Your task to perform on an android device: Go to privacy settings Image 0: 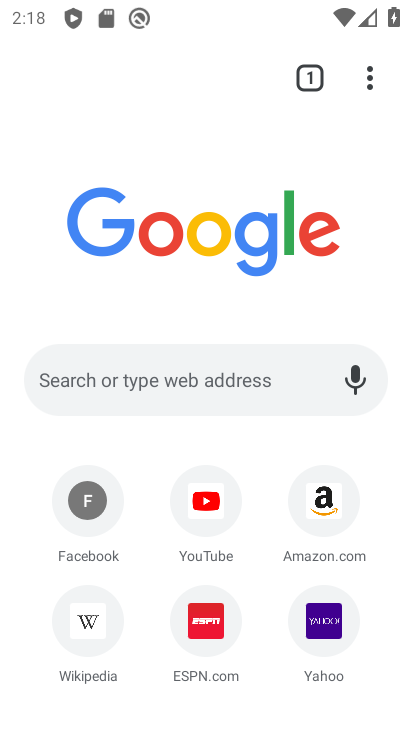
Step 0: press home button
Your task to perform on an android device: Go to privacy settings Image 1: 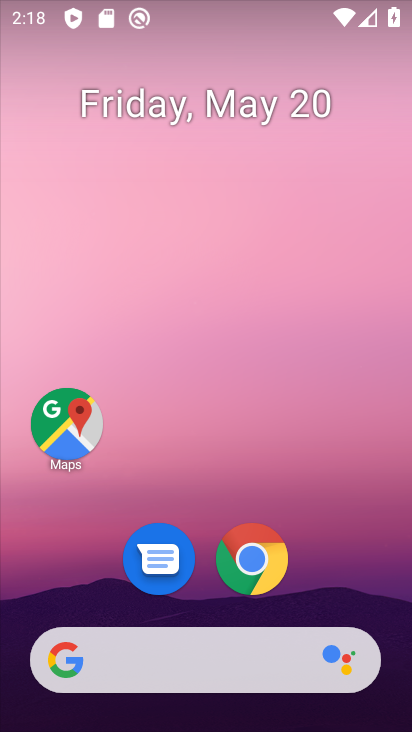
Step 1: drag from (216, 457) to (230, 42)
Your task to perform on an android device: Go to privacy settings Image 2: 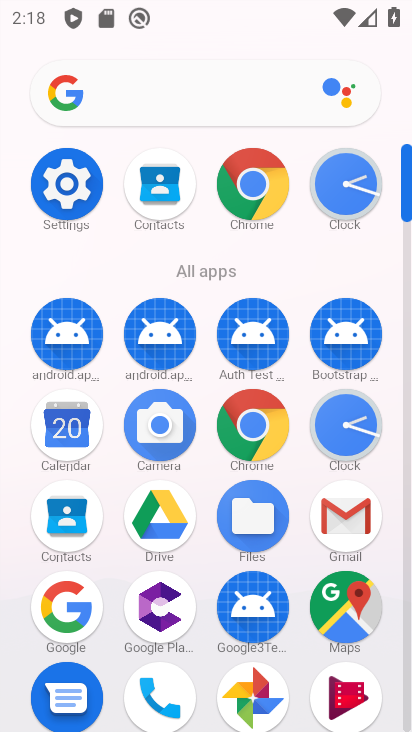
Step 2: click (76, 190)
Your task to perform on an android device: Go to privacy settings Image 3: 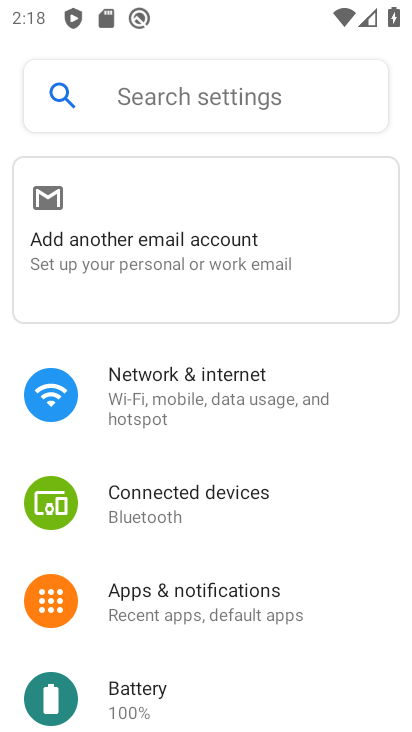
Step 3: drag from (198, 640) to (235, 110)
Your task to perform on an android device: Go to privacy settings Image 4: 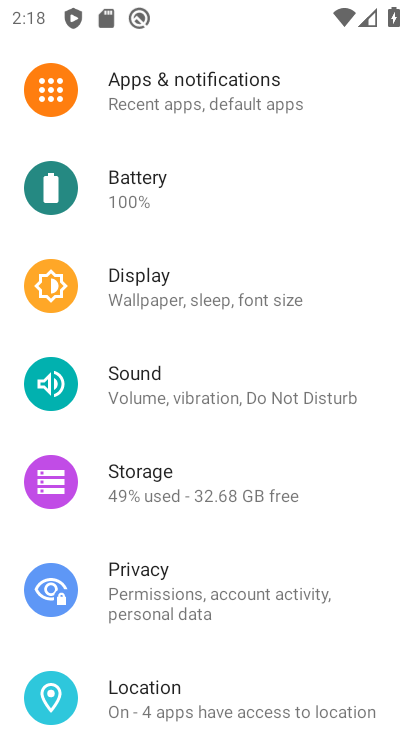
Step 4: click (168, 589)
Your task to perform on an android device: Go to privacy settings Image 5: 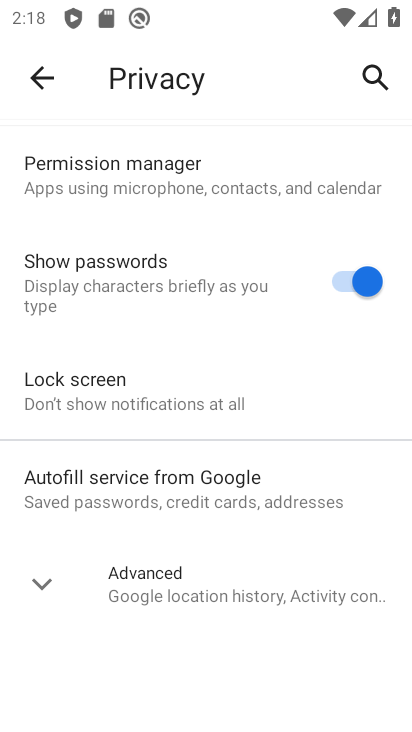
Step 5: task complete